Your task to perform on an android device: What's on my calendar today? Image 0: 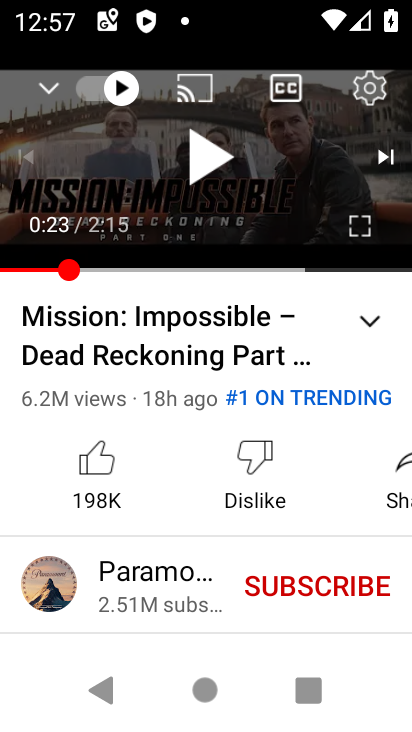
Step 0: press home button
Your task to perform on an android device: What's on my calendar today? Image 1: 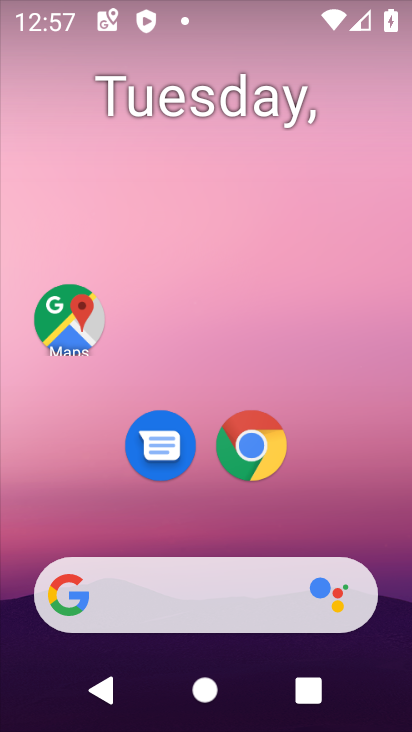
Step 1: drag from (339, 482) to (376, 40)
Your task to perform on an android device: What's on my calendar today? Image 2: 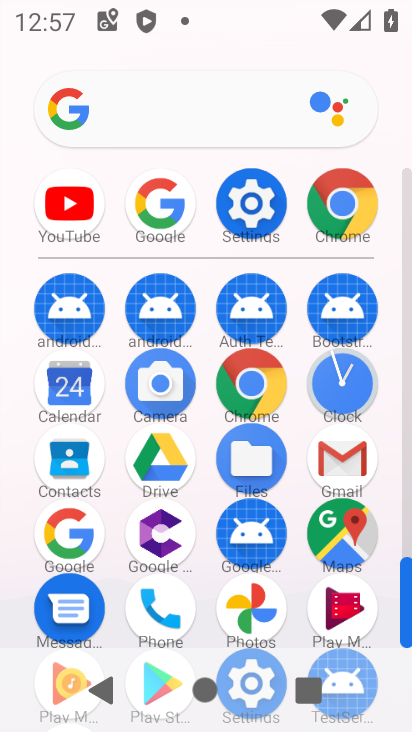
Step 2: click (52, 382)
Your task to perform on an android device: What's on my calendar today? Image 3: 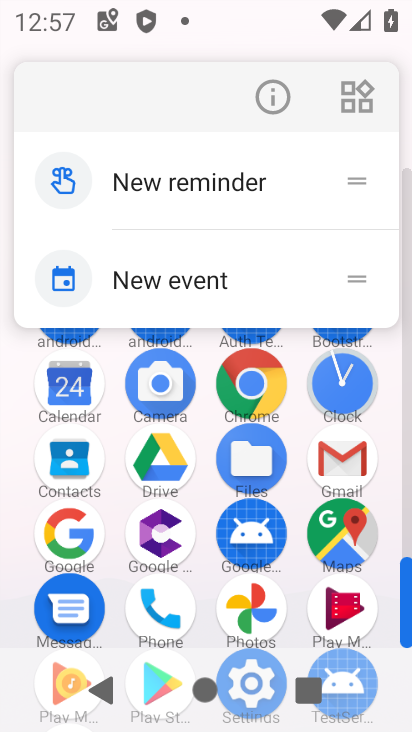
Step 3: click (79, 397)
Your task to perform on an android device: What's on my calendar today? Image 4: 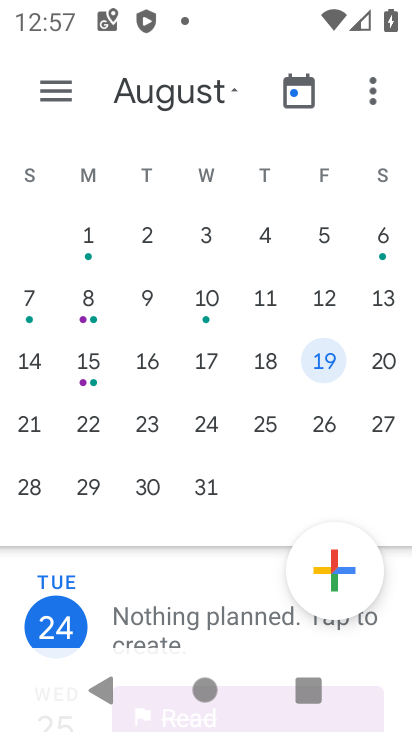
Step 4: task complete